Your task to perform on an android device: Go to ESPN.com Image 0: 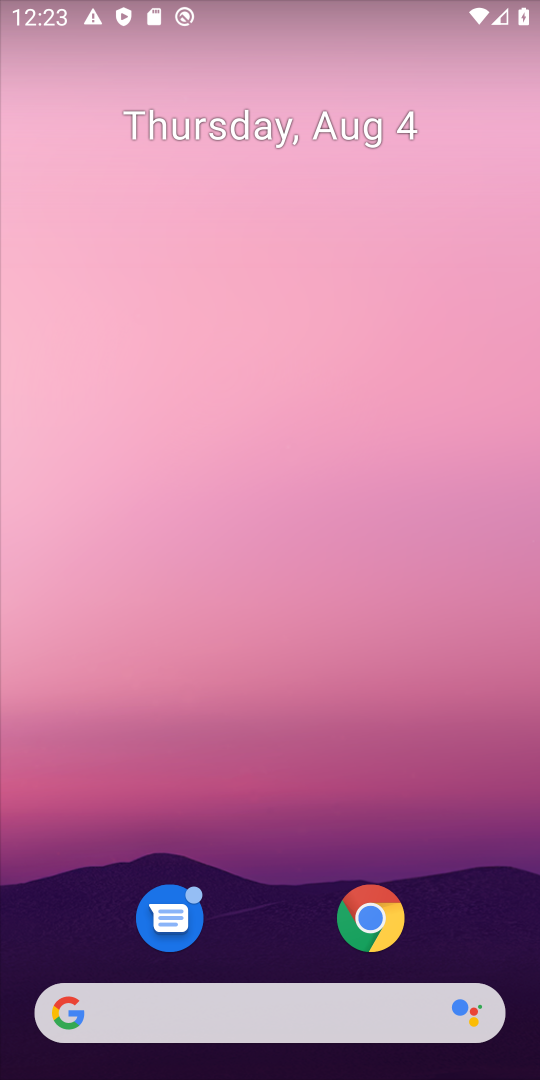
Step 0: click (394, 939)
Your task to perform on an android device: Go to ESPN.com Image 1: 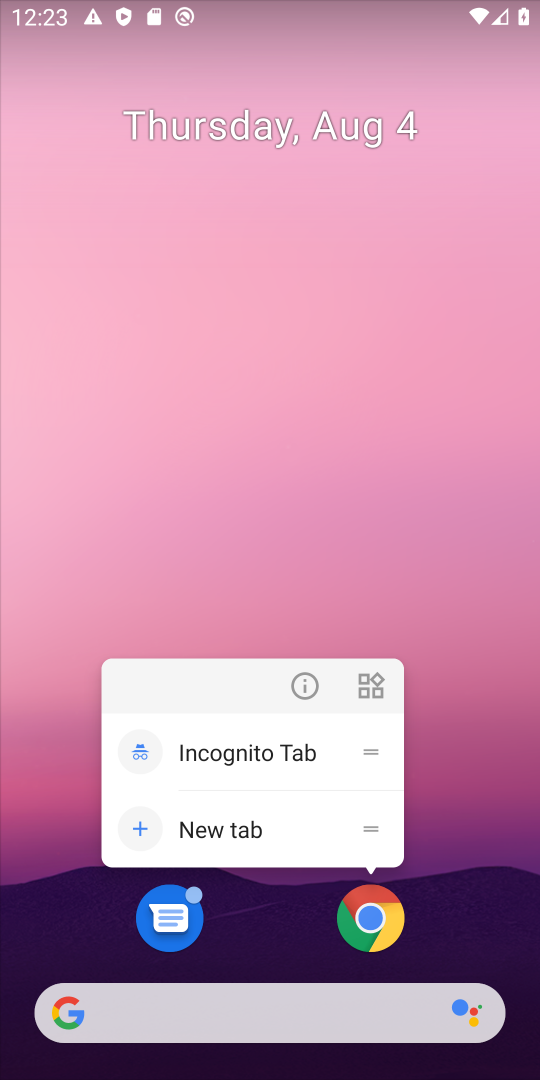
Step 1: click (394, 939)
Your task to perform on an android device: Go to ESPN.com Image 2: 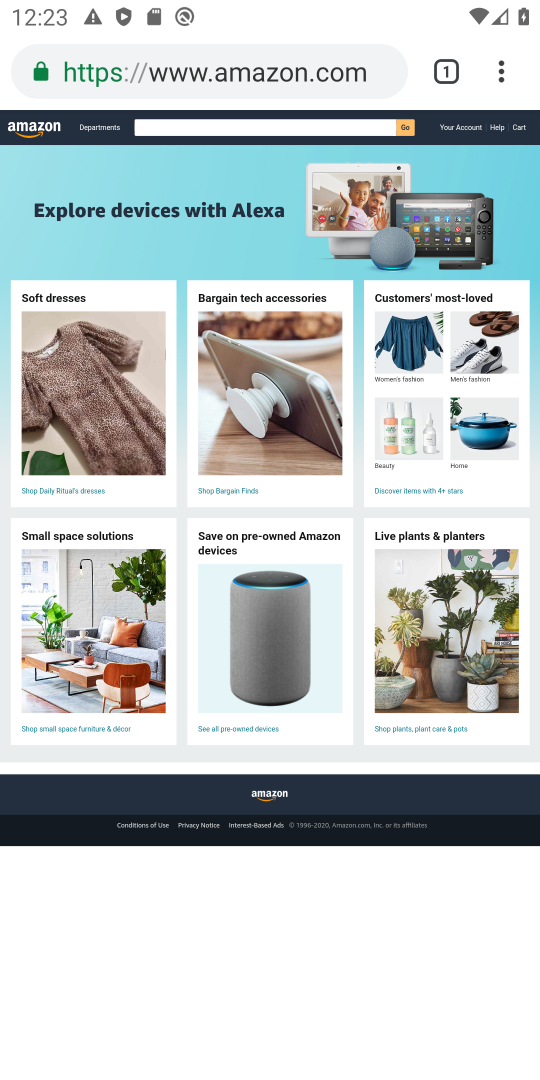
Step 2: click (441, 73)
Your task to perform on an android device: Go to ESPN.com Image 3: 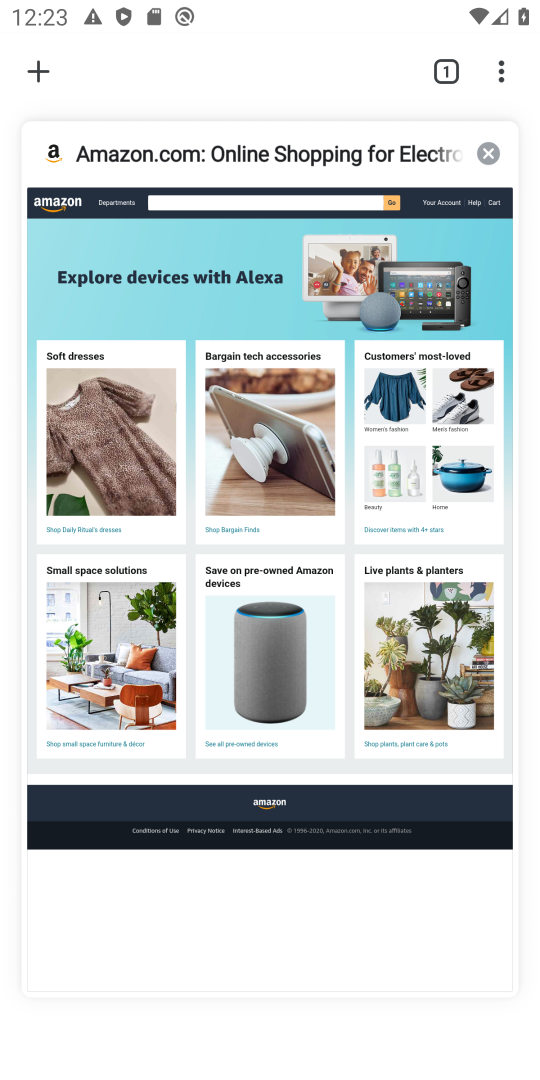
Step 3: click (35, 59)
Your task to perform on an android device: Go to ESPN.com Image 4: 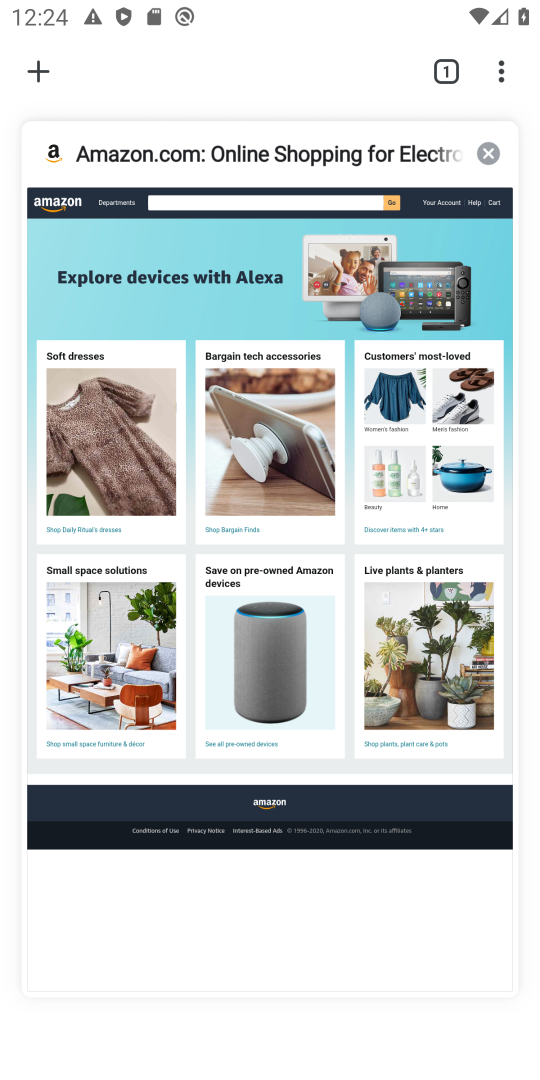
Step 4: click (42, 76)
Your task to perform on an android device: Go to ESPN.com Image 5: 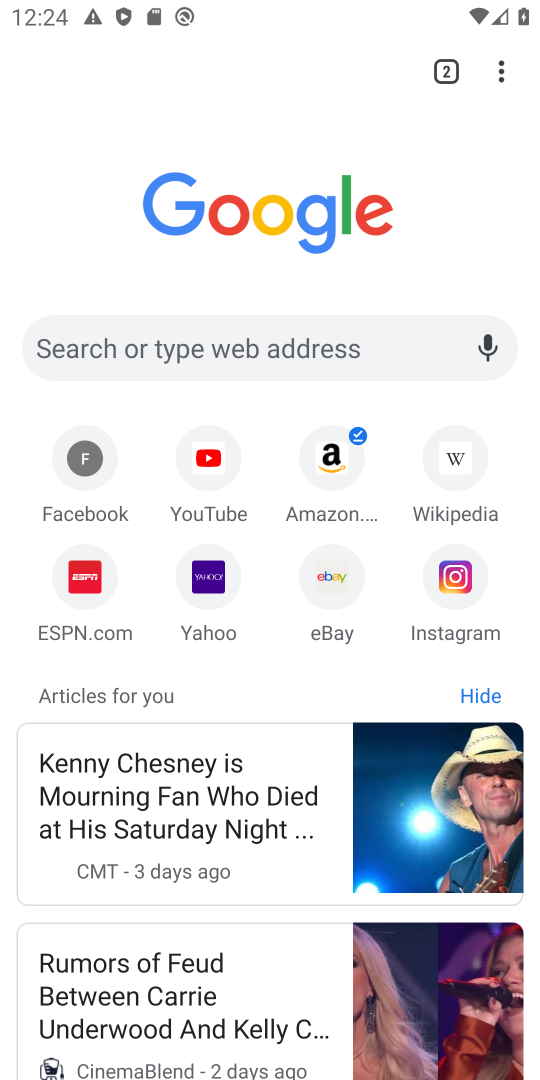
Step 5: click (88, 571)
Your task to perform on an android device: Go to ESPN.com Image 6: 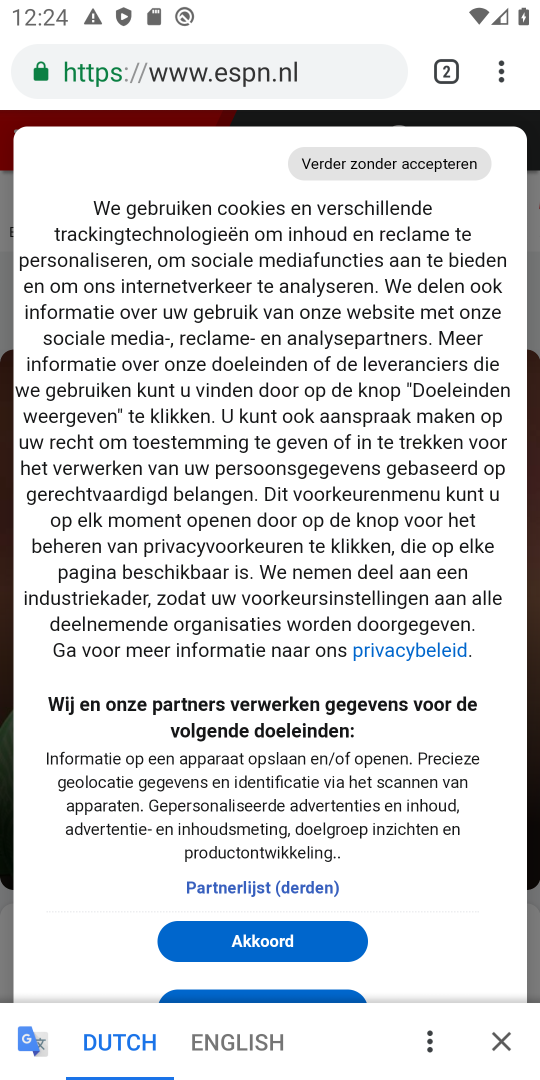
Step 6: task complete